Your task to perform on an android device: uninstall "Google News" Image 0: 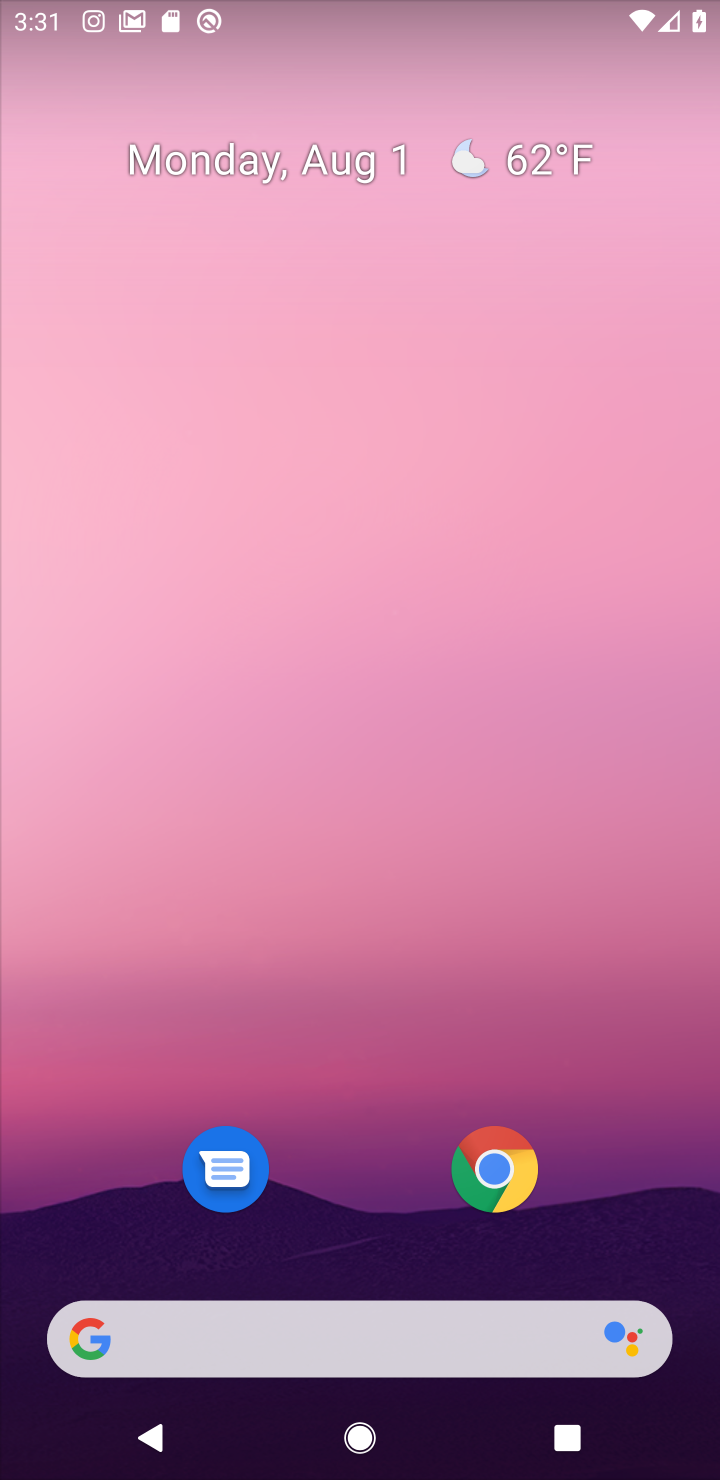
Step 0: drag from (335, 1192) to (334, 366)
Your task to perform on an android device: uninstall "Google News" Image 1: 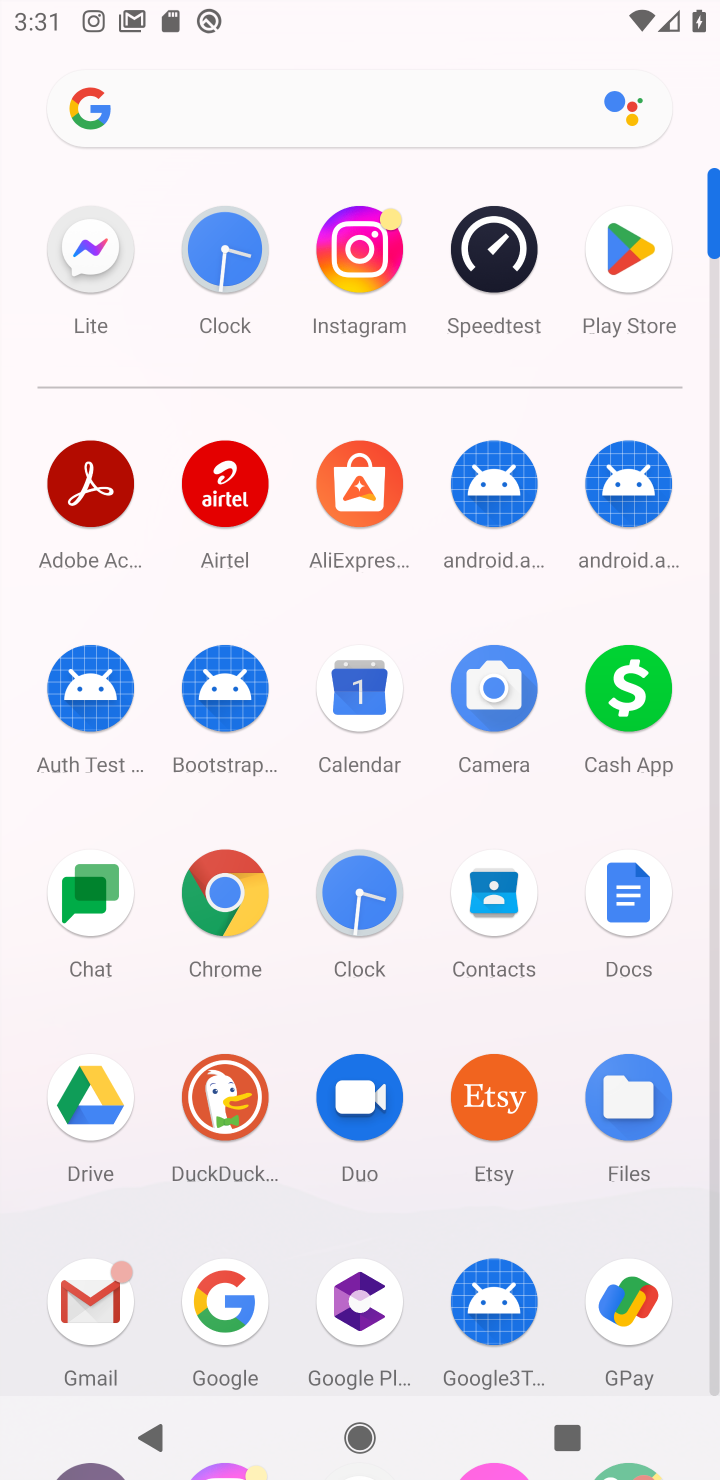
Step 1: click (605, 305)
Your task to perform on an android device: uninstall "Google News" Image 2: 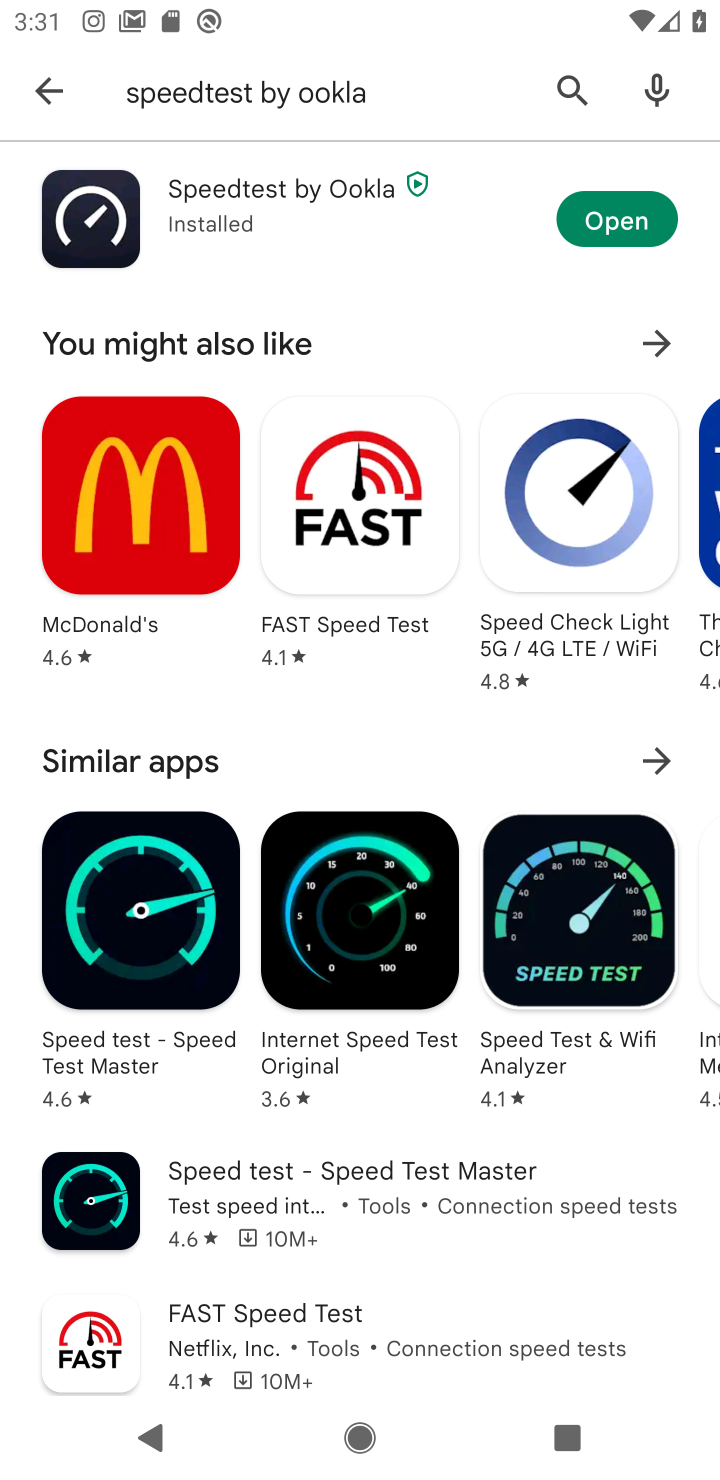
Step 2: click (45, 99)
Your task to perform on an android device: uninstall "Google News" Image 3: 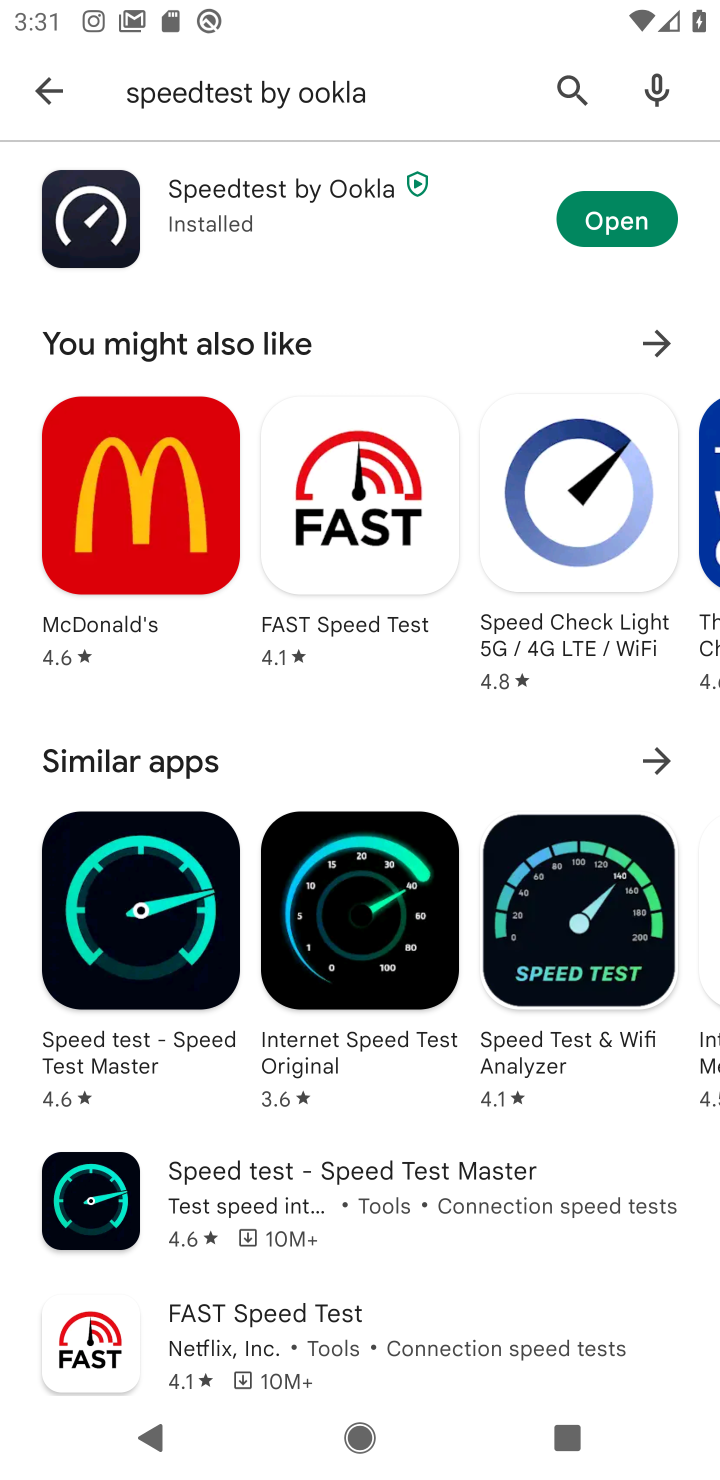
Step 3: click (37, 92)
Your task to perform on an android device: uninstall "Google News" Image 4: 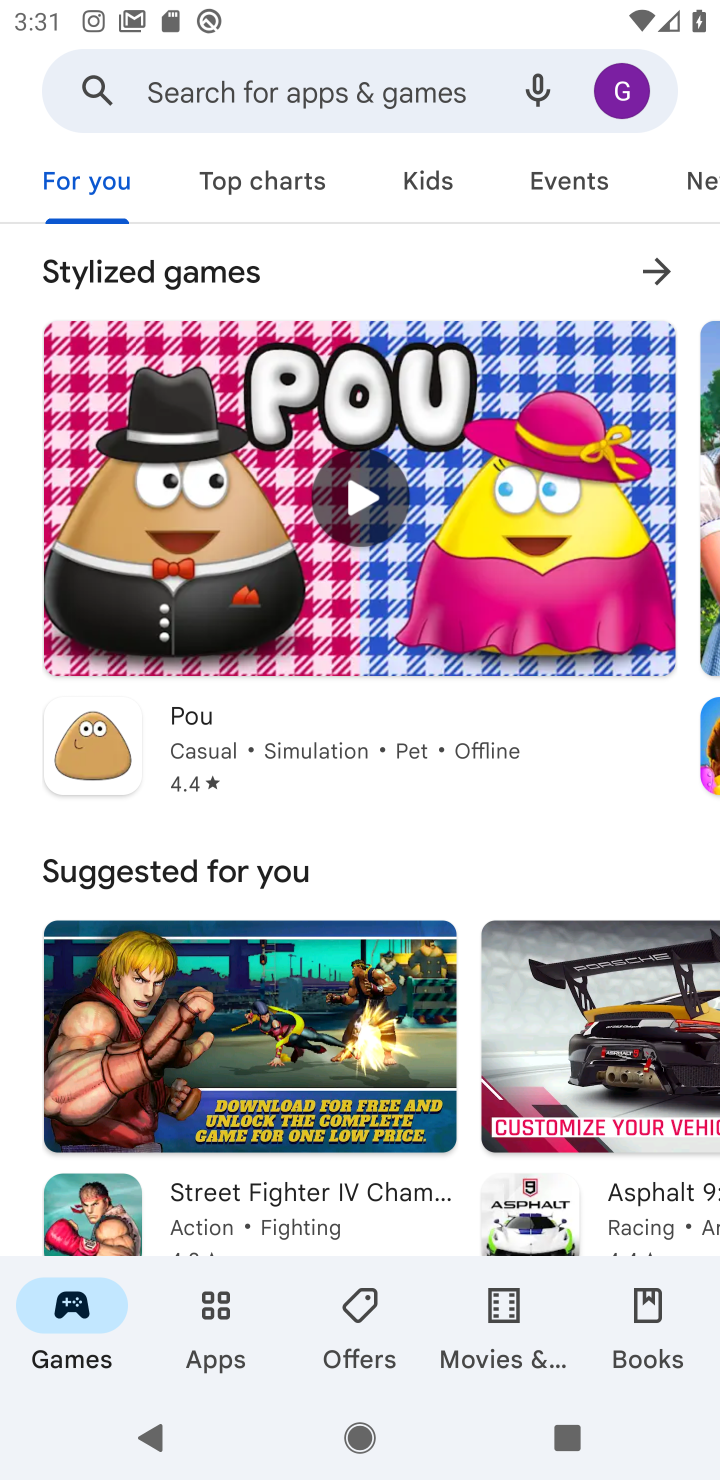
Step 4: click (244, 73)
Your task to perform on an android device: uninstall "Google News" Image 5: 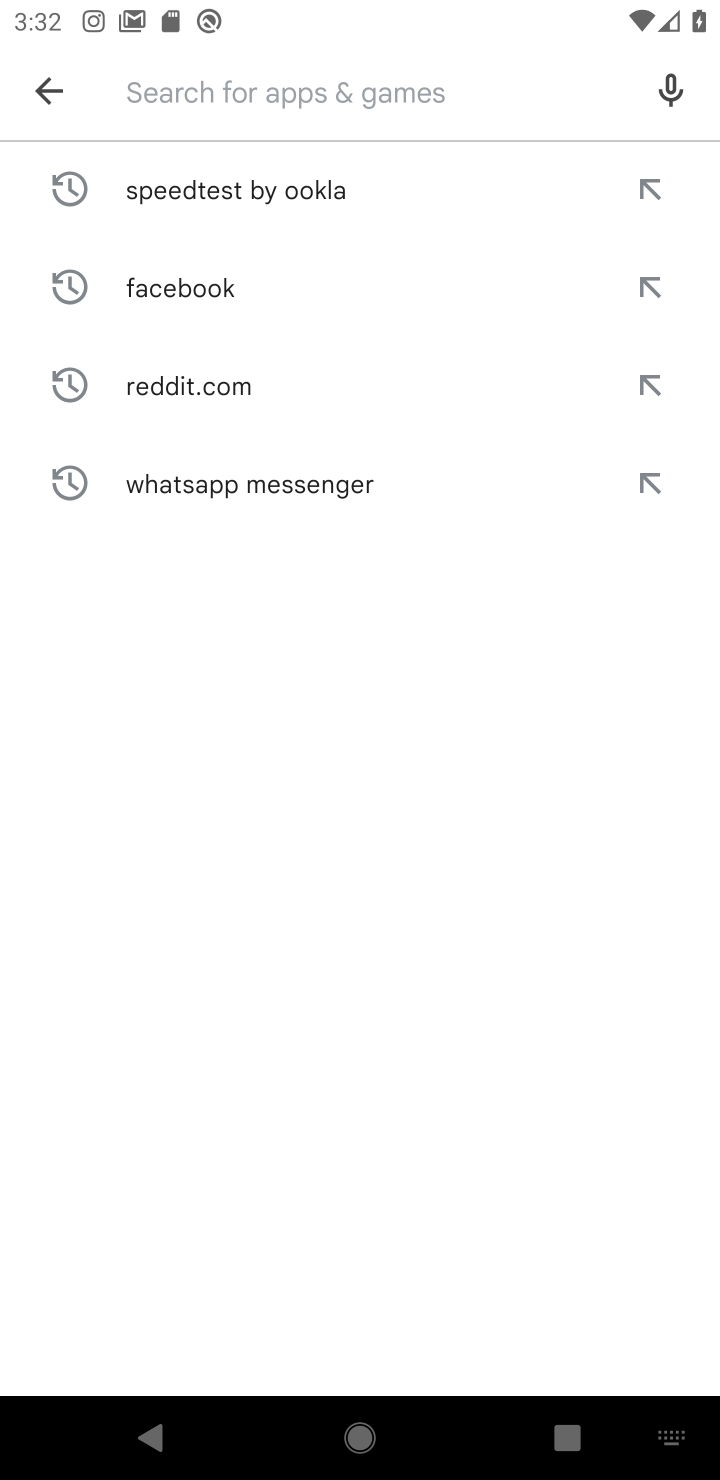
Step 5: type "google news"
Your task to perform on an android device: uninstall "Google News" Image 6: 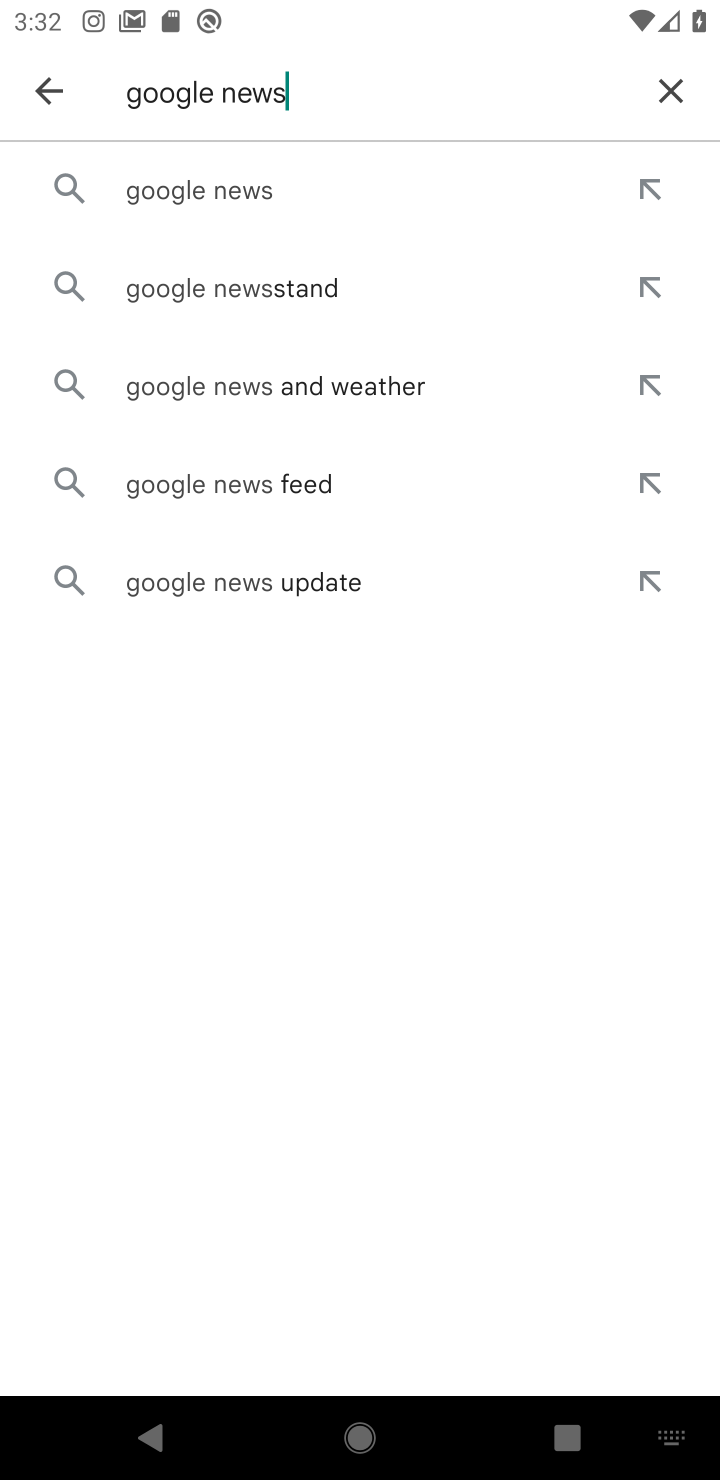
Step 6: click (257, 199)
Your task to perform on an android device: uninstall "Google News" Image 7: 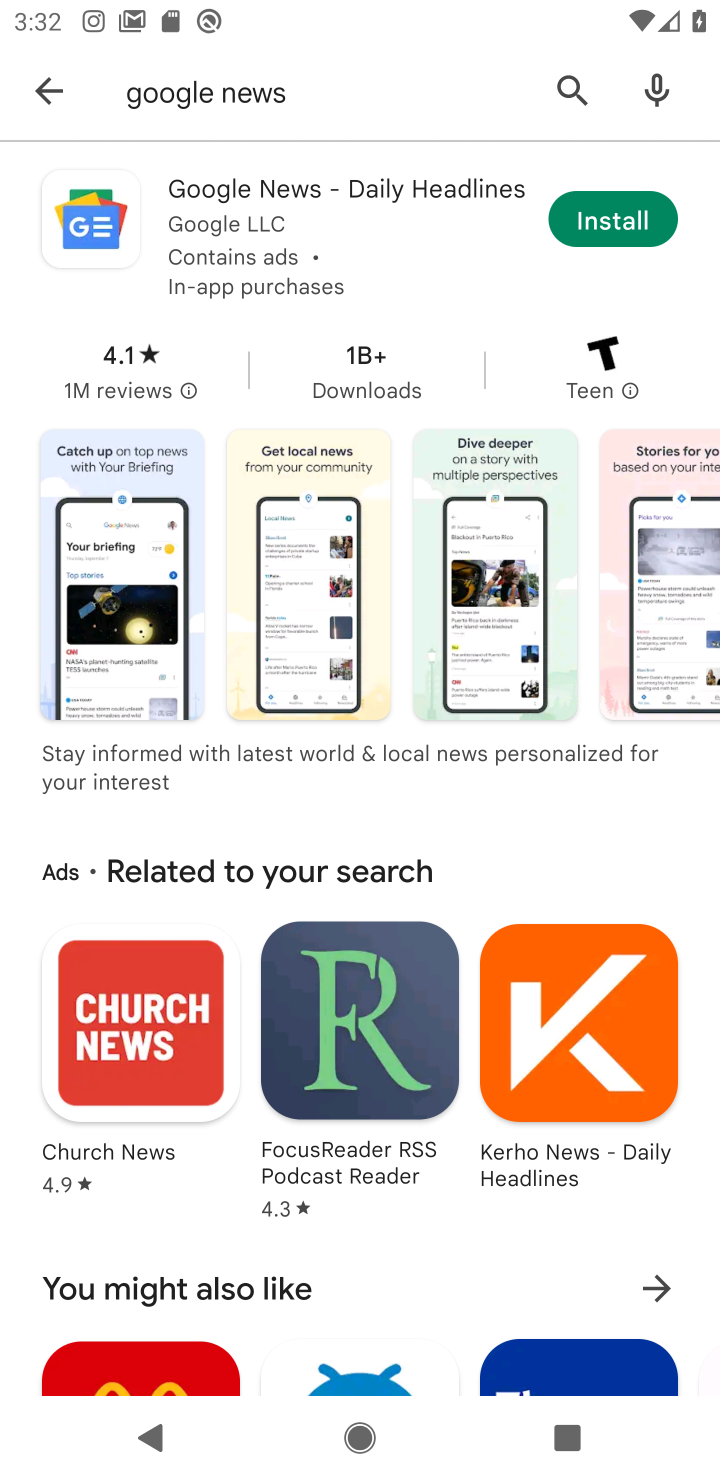
Step 7: click (627, 238)
Your task to perform on an android device: uninstall "Google News" Image 8: 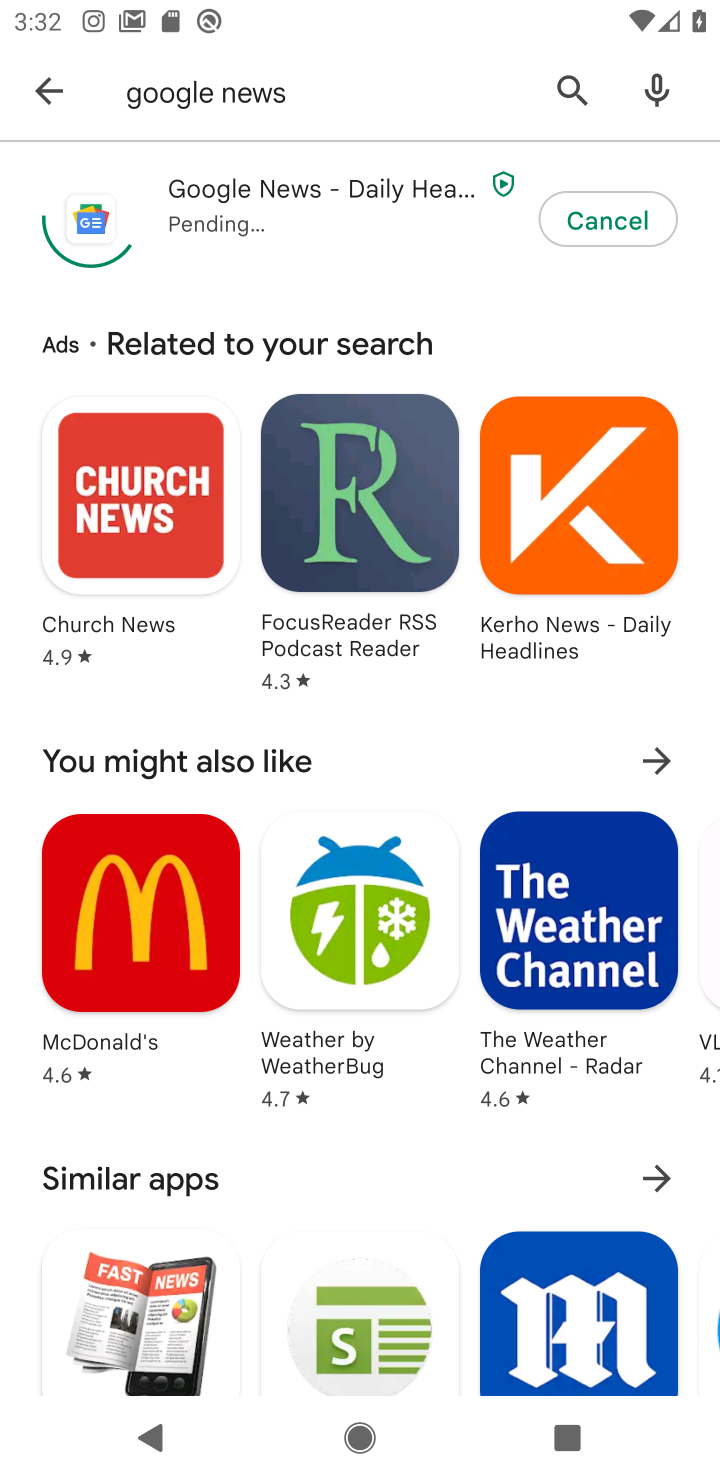
Step 8: click (562, 222)
Your task to perform on an android device: uninstall "Google News" Image 9: 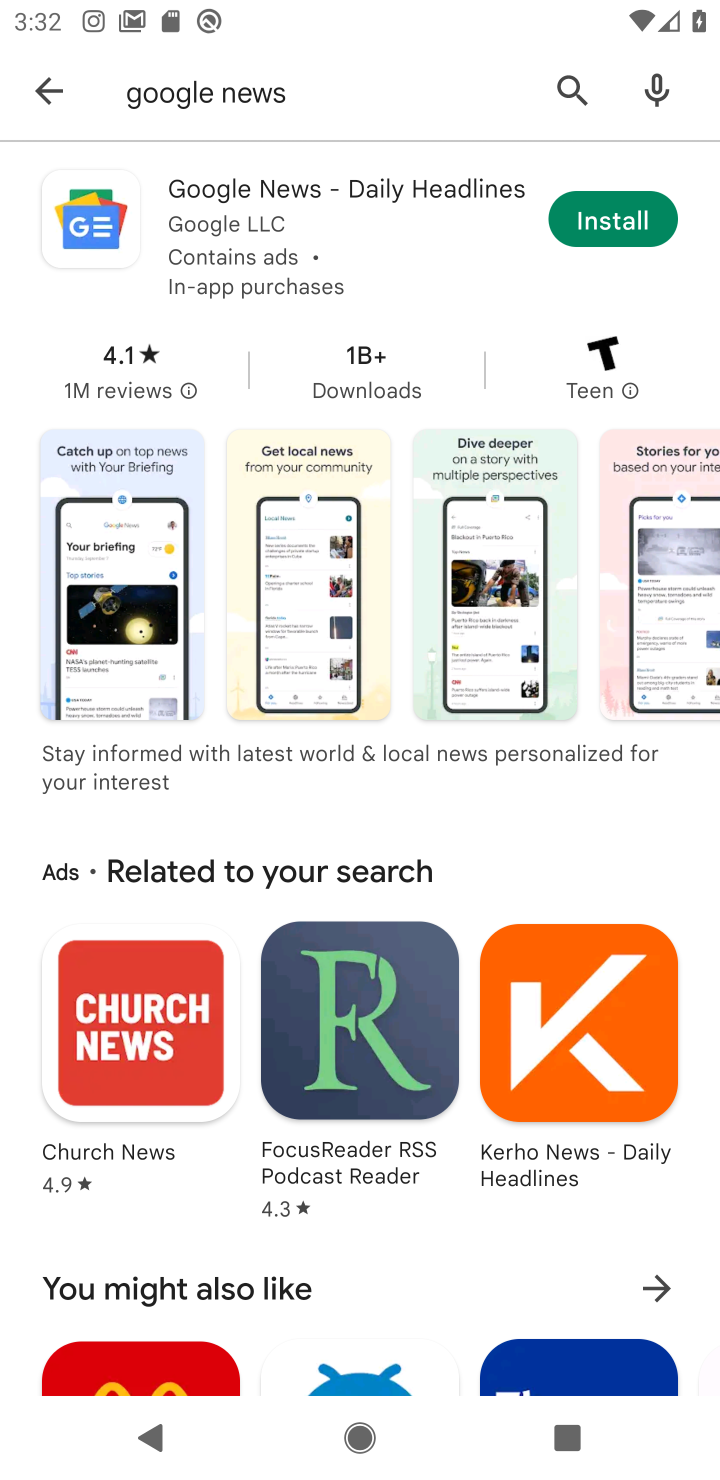
Step 9: task complete